Your task to perform on an android device: turn off sleep mode Image 0: 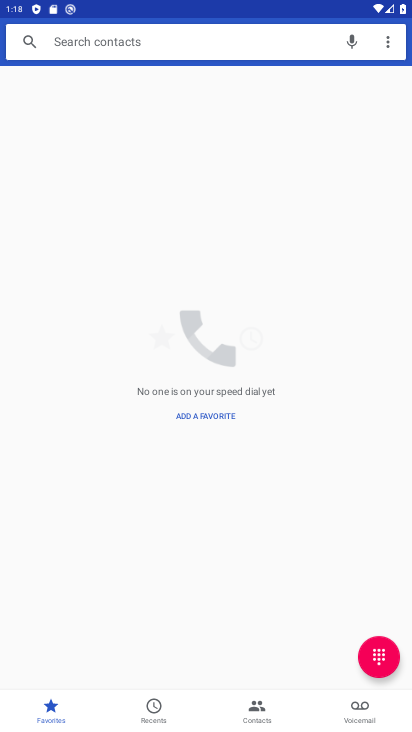
Step 0: press home button
Your task to perform on an android device: turn off sleep mode Image 1: 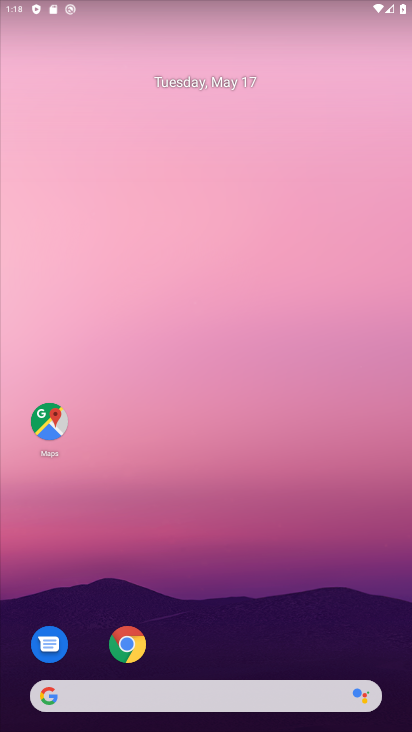
Step 1: drag from (202, 679) to (190, 179)
Your task to perform on an android device: turn off sleep mode Image 2: 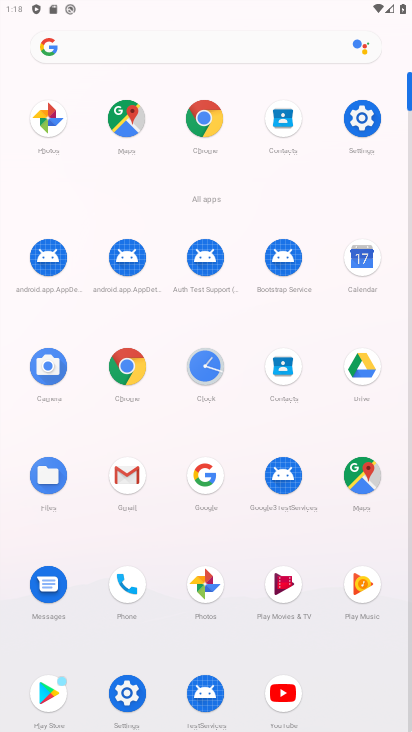
Step 2: click (132, 710)
Your task to perform on an android device: turn off sleep mode Image 3: 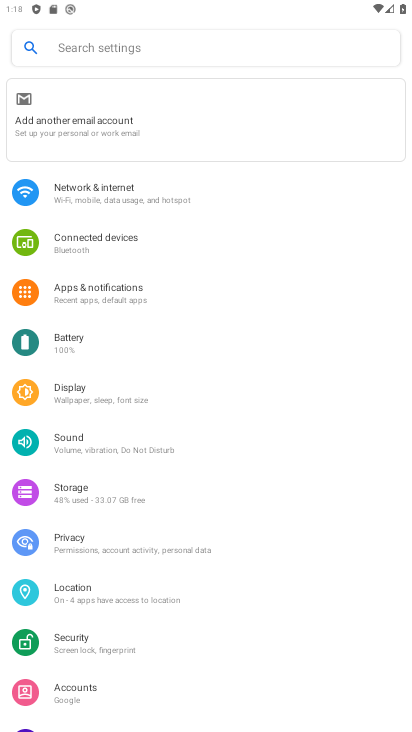
Step 3: click (101, 402)
Your task to perform on an android device: turn off sleep mode Image 4: 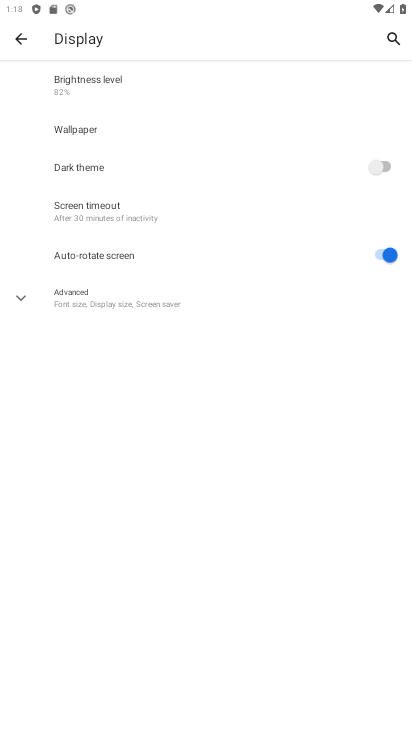
Step 4: click (90, 295)
Your task to perform on an android device: turn off sleep mode Image 5: 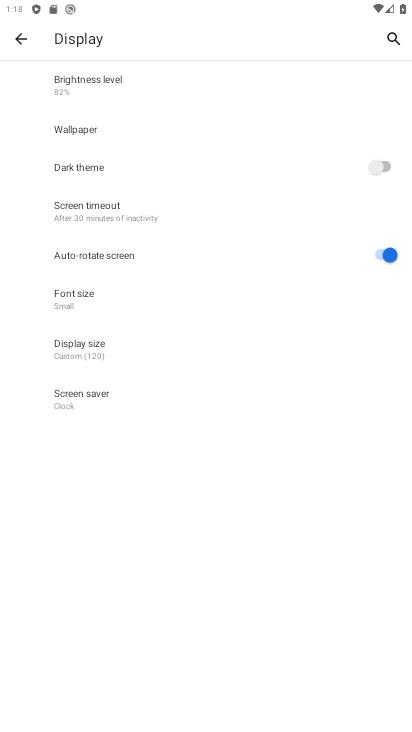
Step 5: task complete